Your task to perform on an android device: turn off location history Image 0: 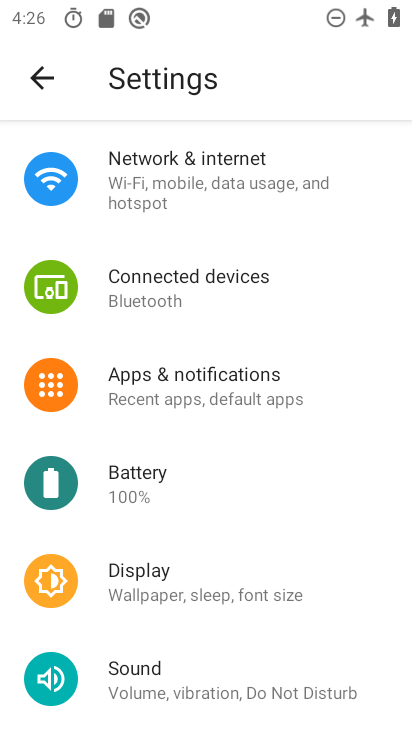
Step 0: press home button
Your task to perform on an android device: turn off location history Image 1: 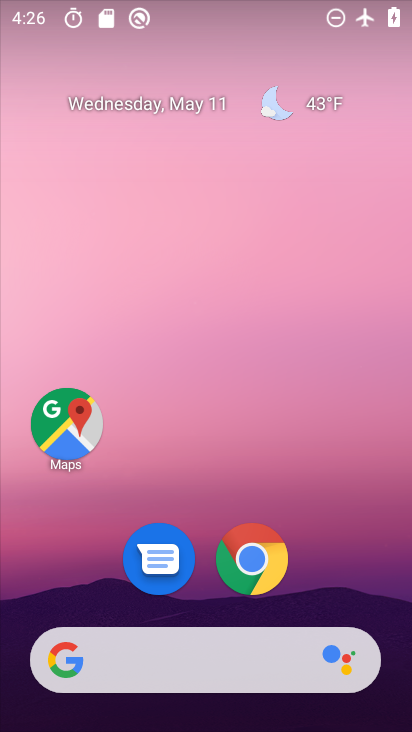
Step 1: drag from (355, 577) to (224, 112)
Your task to perform on an android device: turn off location history Image 2: 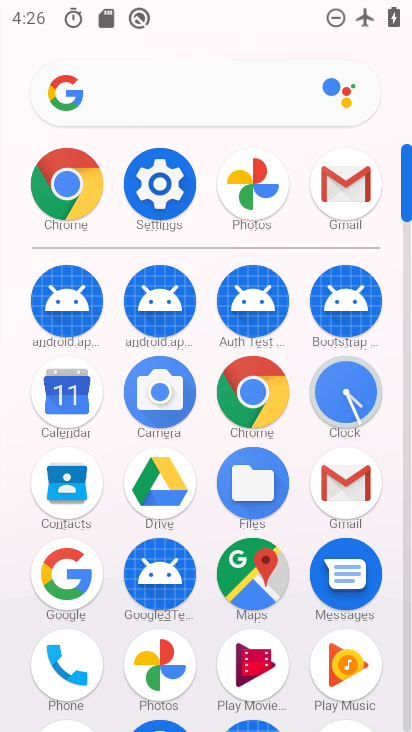
Step 2: click (148, 208)
Your task to perform on an android device: turn off location history Image 3: 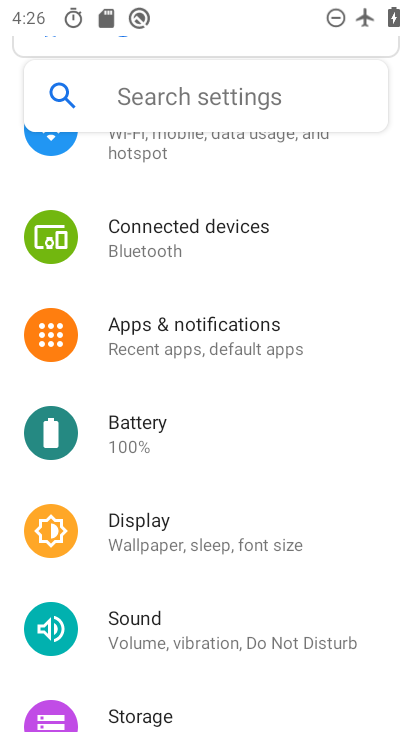
Step 3: drag from (253, 645) to (257, 257)
Your task to perform on an android device: turn off location history Image 4: 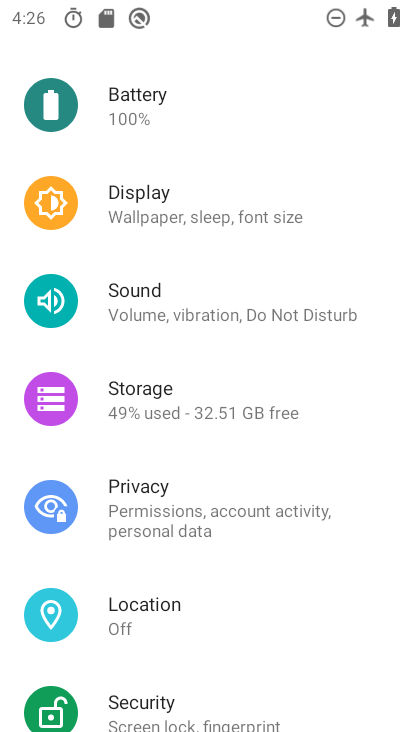
Step 4: click (215, 612)
Your task to perform on an android device: turn off location history Image 5: 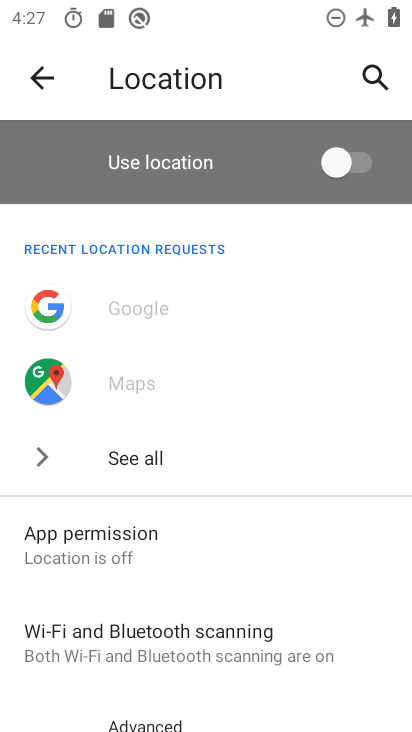
Step 5: drag from (269, 569) to (226, 252)
Your task to perform on an android device: turn off location history Image 6: 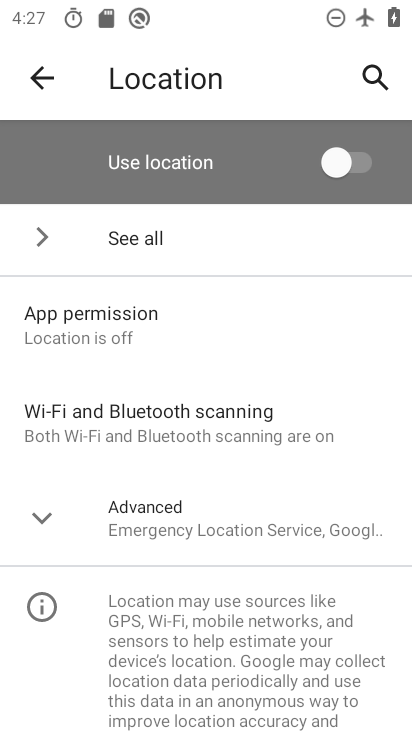
Step 6: click (211, 517)
Your task to perform on an android device: turn off location history Image 7: 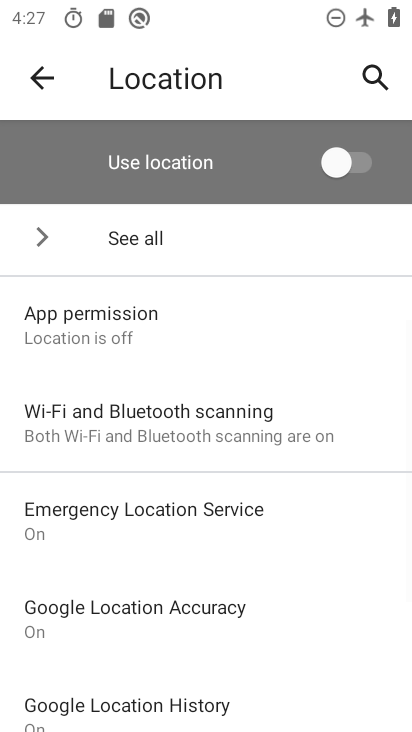
Step 7: click (214, 704)
Your task to perform on an android device: turn off location history Image 8: 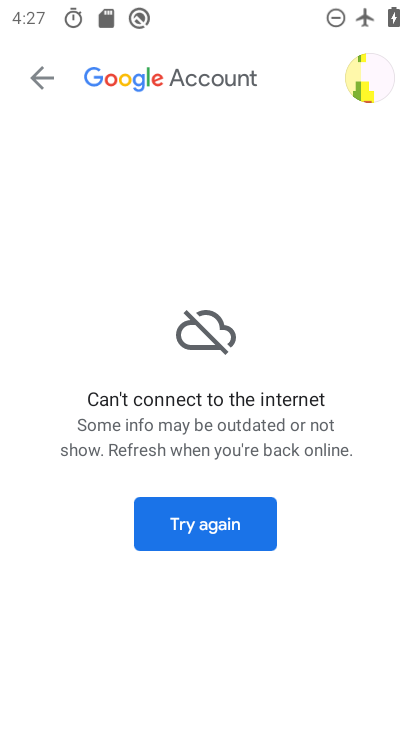
Step 8: task complete